Your task to perform on an android device: Go to ESPN.com Image 0: 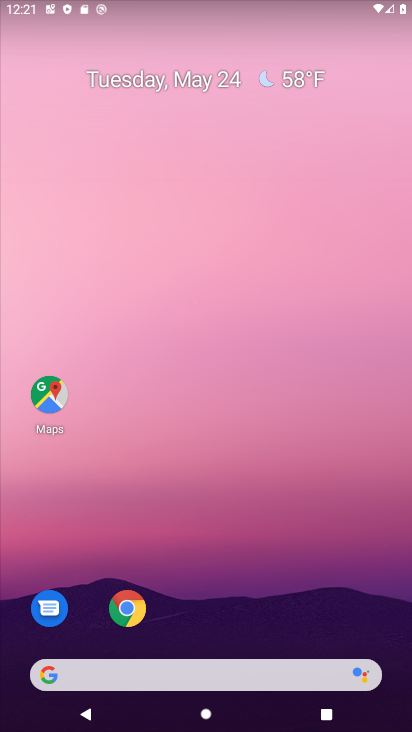
Step 0: press home button
Your task to perform on an android device: Go to ESPN.com Image 1: 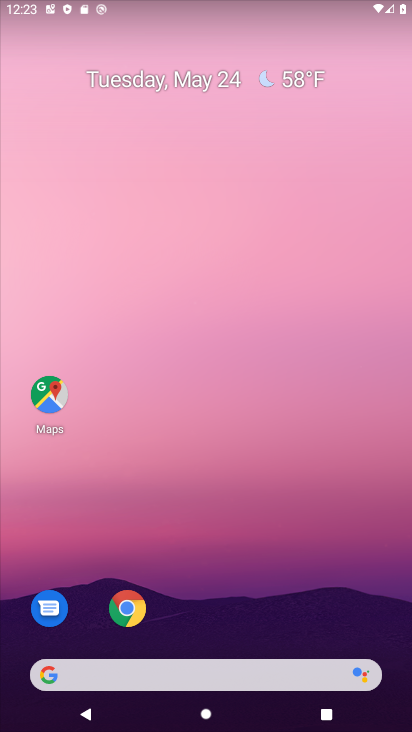
Step 1: drag from (272, 643) to (132, 36)
Your task to perform on an android device: Go to ESPN.com Image 2: 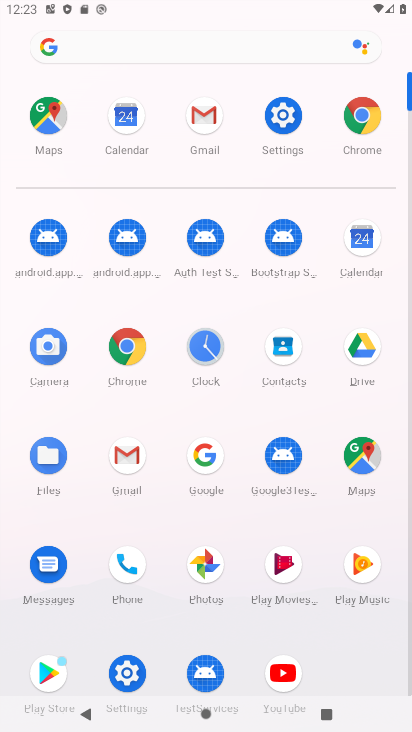
Step 2: click (139, 335)
Your task to perform on an android device: Go to ESPN.com Image 3: 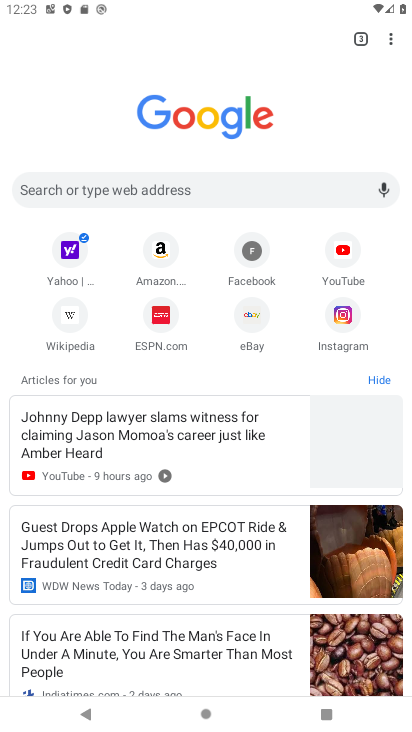
Step 3: click (165, 326)
Your task to perform on an android device: Go to ESPN.com Image 4: 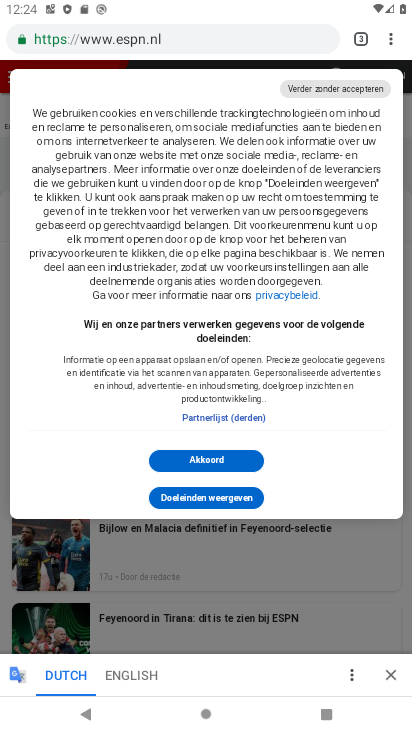
Step 4: click (177, 462)
Your task to perform on an android device: Go to ESPN.com Image 5: 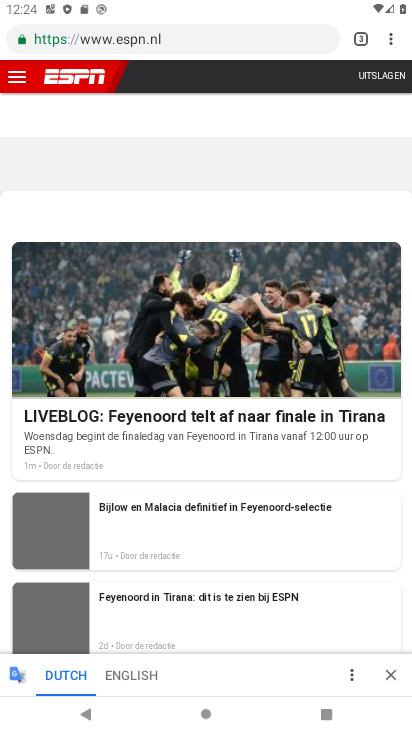
Step 5: task complete